Your task to perform on an android device: clear all cookies in the chrome app Image 0: 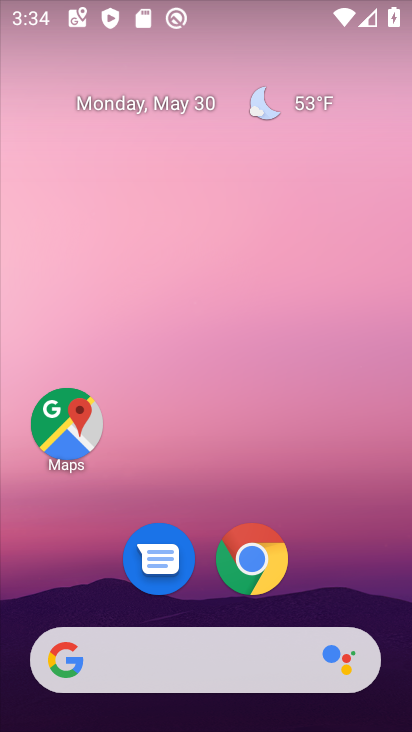
Step 0: click (249, 567)
Your task to perform on an android device: clear all cookies in the chrome app Image 1: 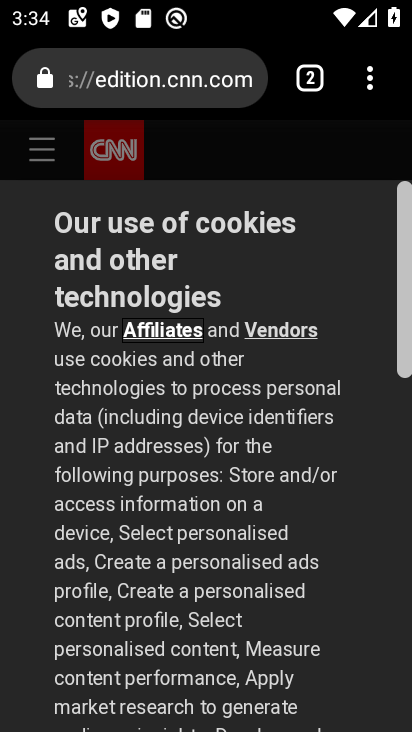
Step 1: click (371, 91)
Your task to perform on an android device: clear all cookies in the chrome app Image 2: 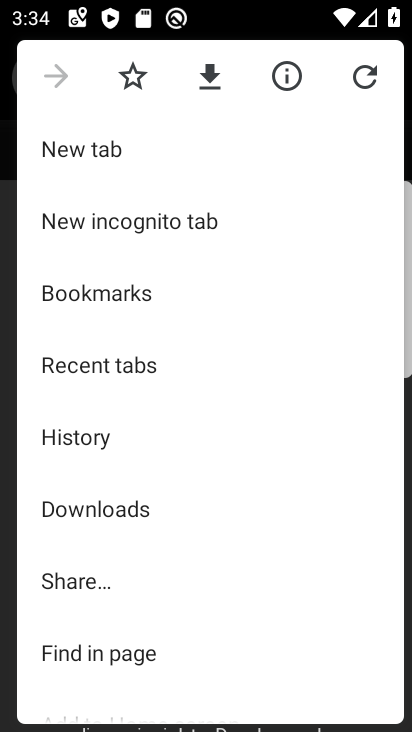
Step 2: click (84, 441)
Your task to perform on an android device: clear all cookies in the chrome app Image 3: 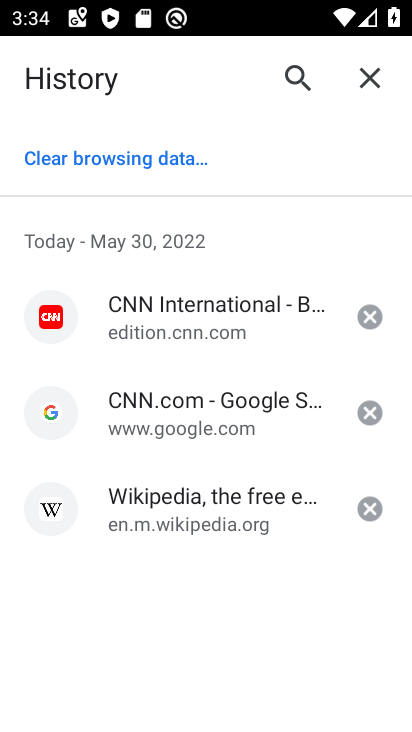
Step 3: click (131, 165)
Your task to perform on an android device: clear all cookies in the chrome app Image 4: 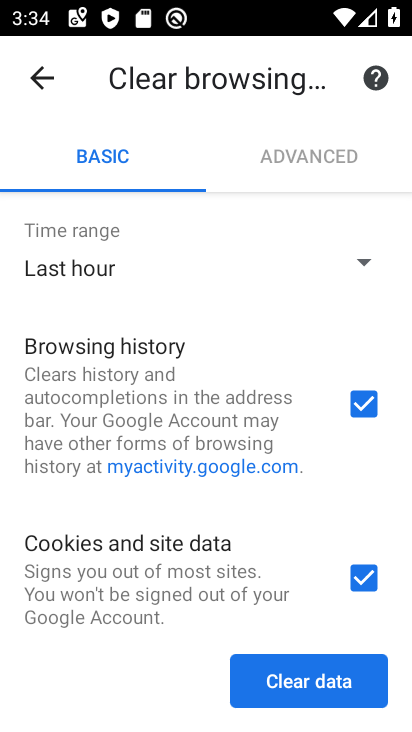
Step 4: drag from (175, 593) to (187, 381)
Your task to perform on an android device: clear all cookies in the chrome app Image 5: 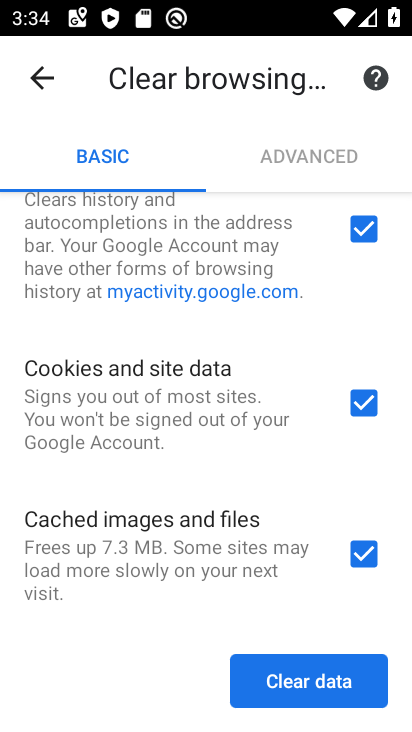
Step 5: click (373, 561)
Your task to perform on an android device: clear all cookies in the chrome app Image 6: 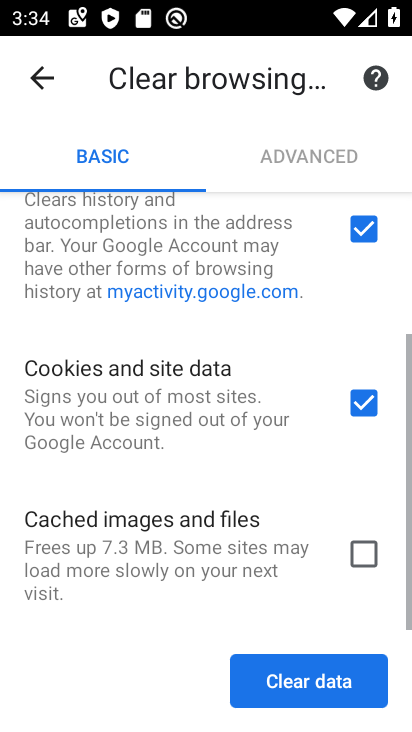
Step 6: click (361, 223)
Your task to perform on an android device: clear all cookies in the chrome app Image 7: 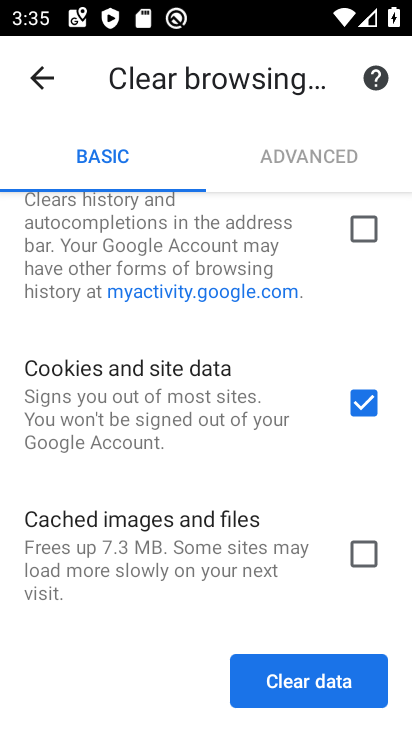
Step 7: click (333, 684)
Your task to perform on an android device: clear all cookies in the chrome app Image 8: 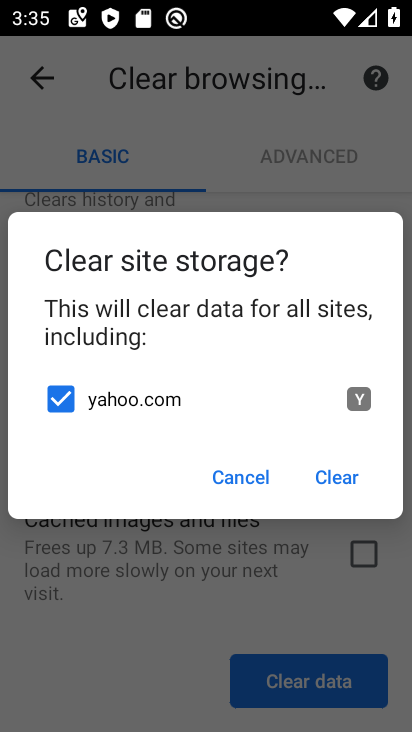
Step 8: click (330, 474)
Your task to perform on an android device: clear all cookies in the chrome app Image 9: 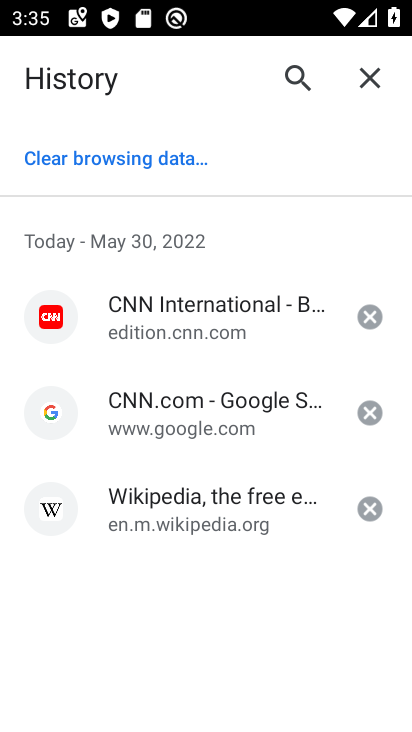
Step 9: task complete